Your task to perform on an android device: see tabs open on other devices in the chrome app Image 0: 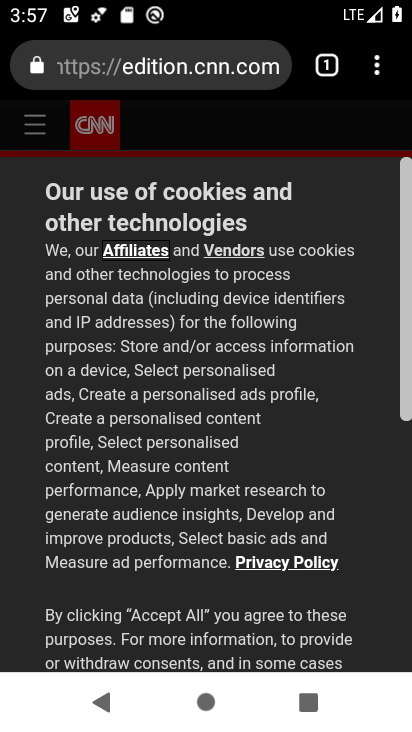
Step 0: click (378, 68)
Your task to perform on an android device: see tabs open on other devices in the chrome app Image 1: 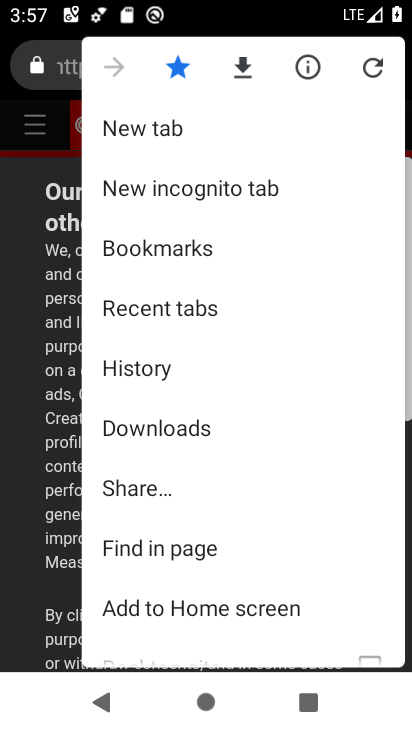
Step 1: click (127, 314)
Your task to perform on an android device: see tabs open on other devices in the chrome app Image 2: 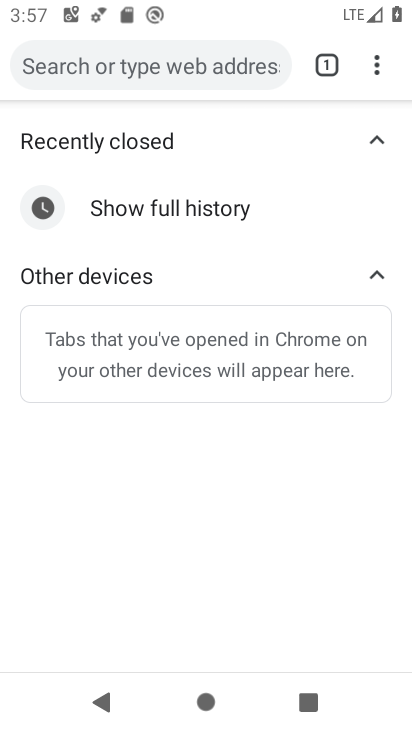
Step 2: task complete